Your task to perform on an android device: When is my next meeting? Image 0: 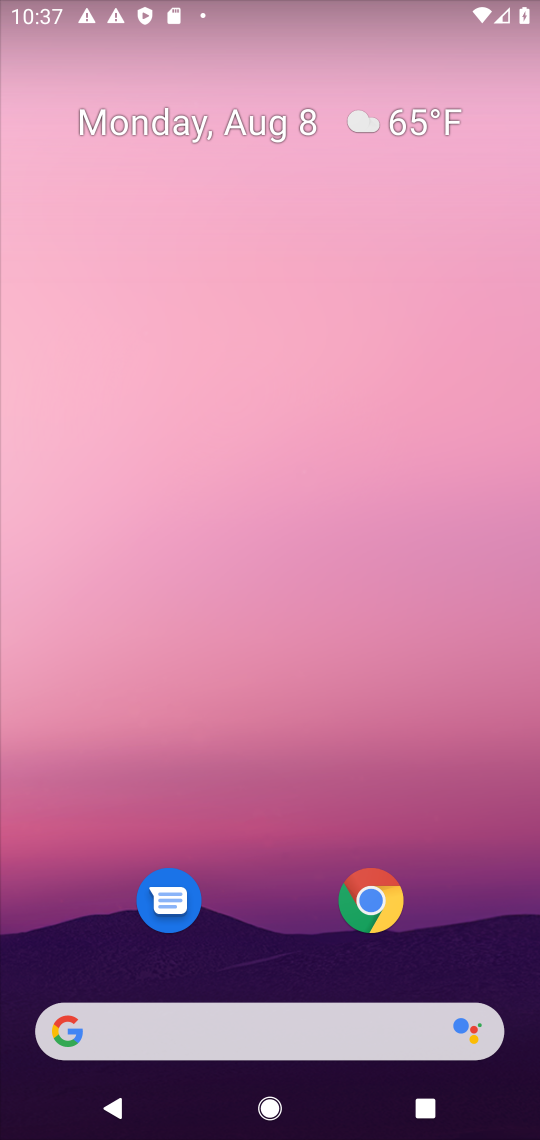
Step 0: drag from (236, 345) to (264, 66)
Your task to perform on an android device: When is my next meeting? Image 1: 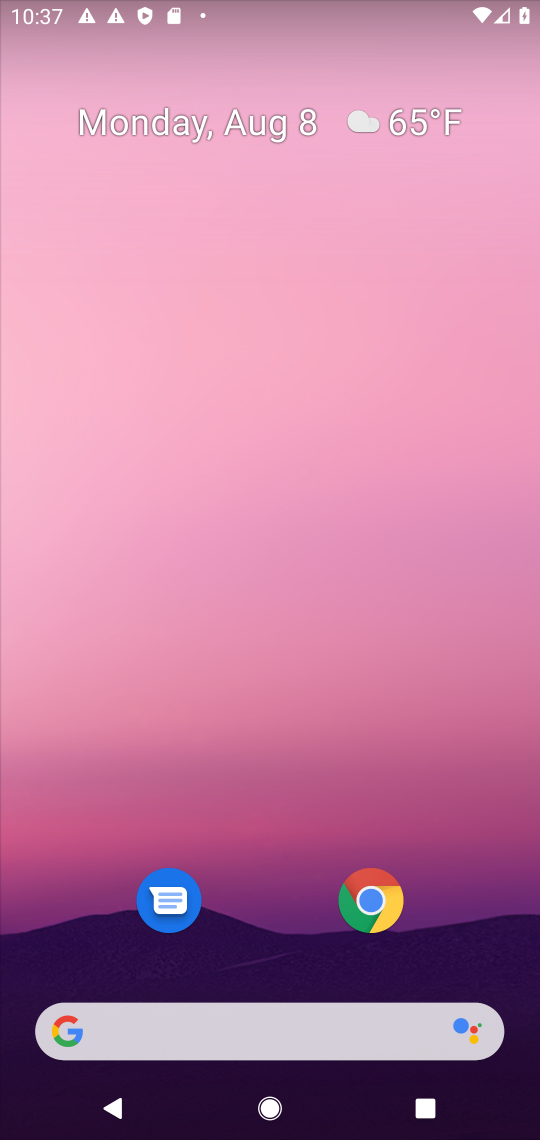
Step 1: drag from (231, 949) to (226, 22)
Your task to perform on an android device: When is my next meeting? Image 2: 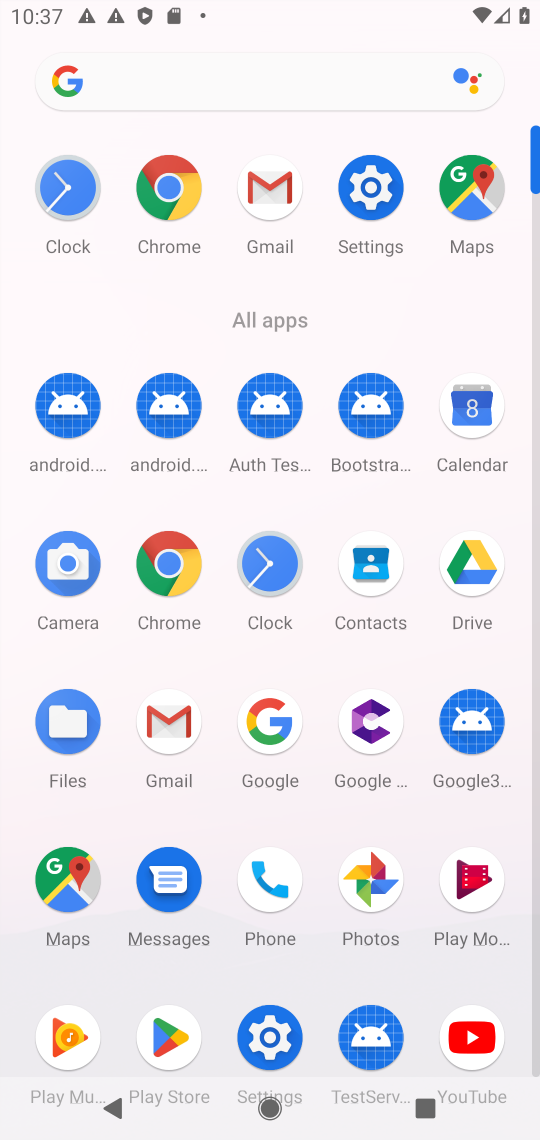
Step 2: click (463, 443)
Your task to perform on an android device: When is my next meeting? Image 3: 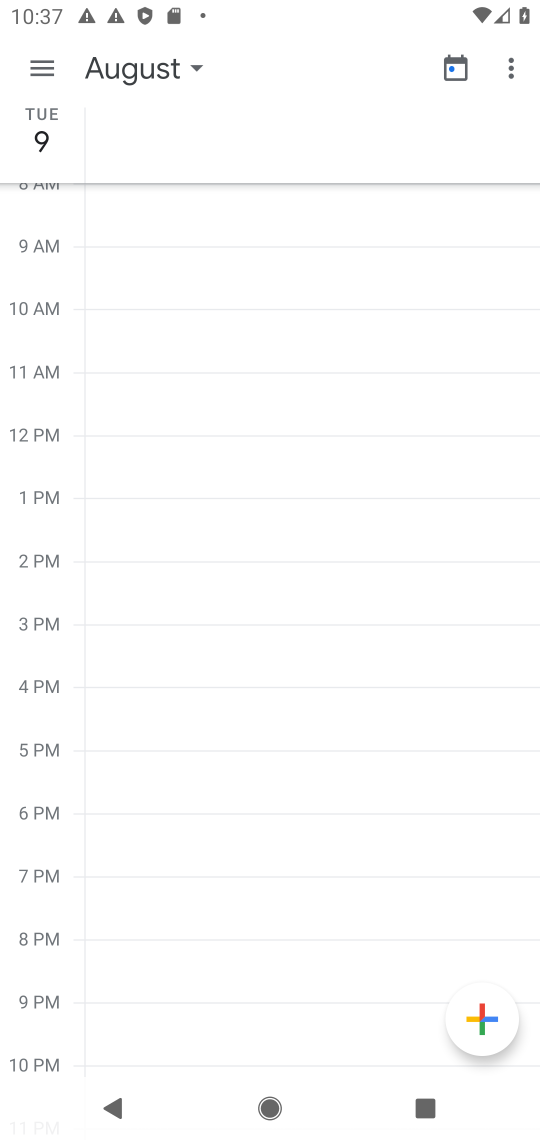
Step 3: click (48, 57)
Your task to perform on an android device: When is my next meeting? Image 4: 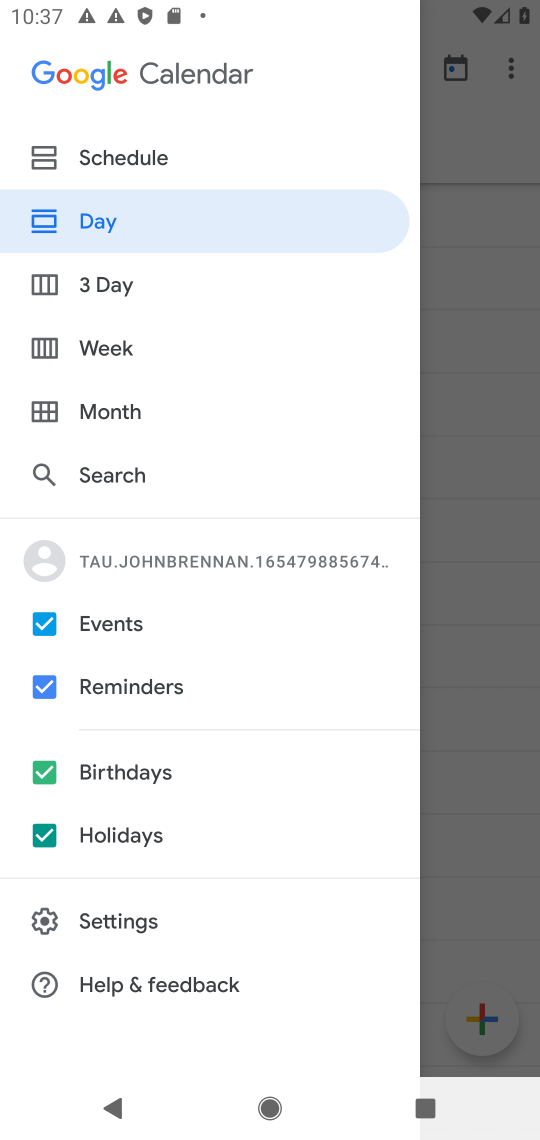
Step 4: click (111, 361)
Your task to perform on an android device: When is my next meeting? Image 5: 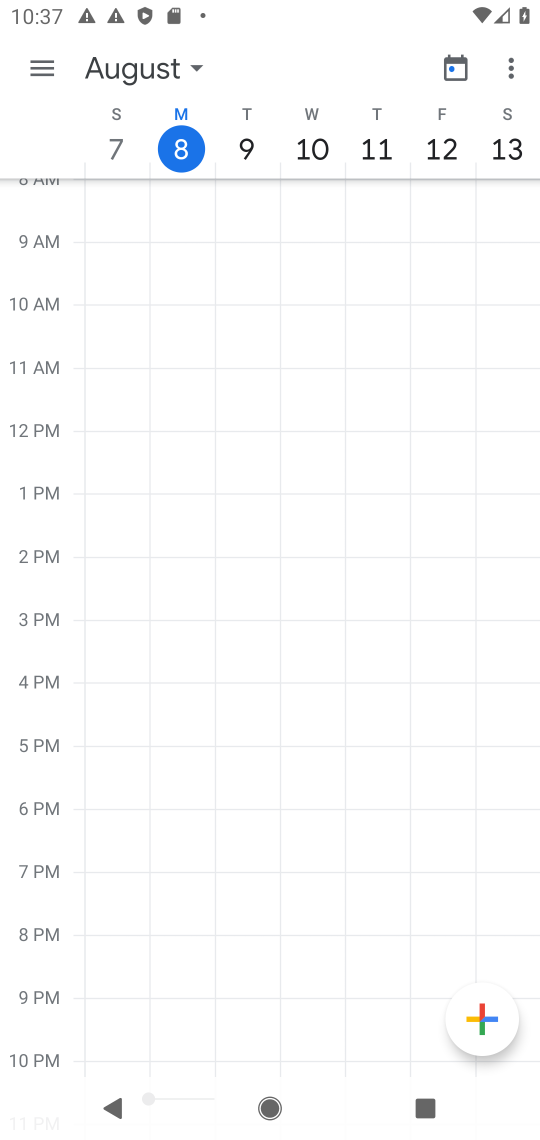
Step 5: click (34, 69)
Your task to perform on an android device: When is my next meeting? Image 6: 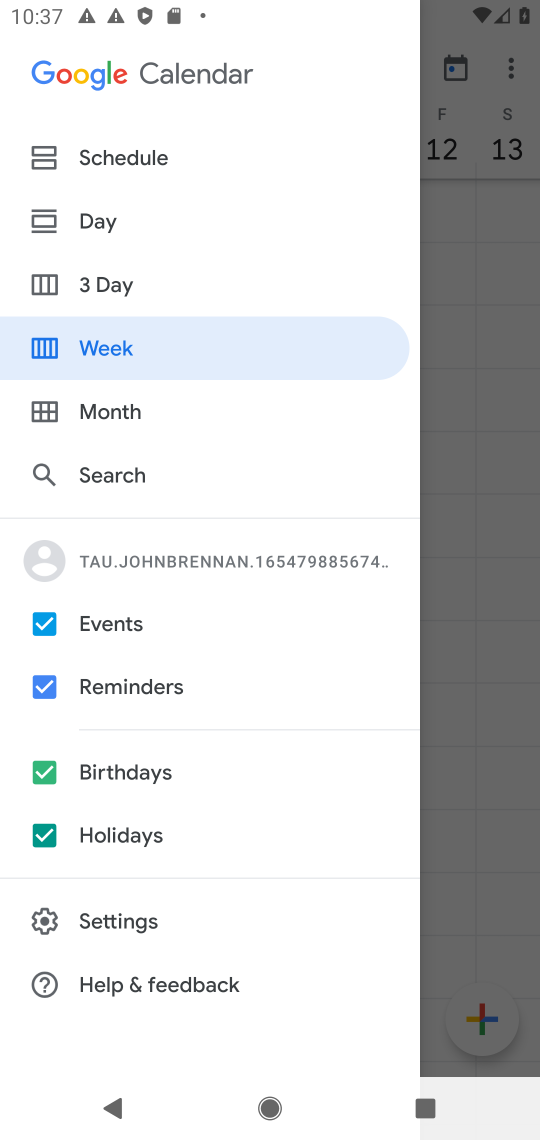
Step 6: click (115, 153)
Your task to perform on an android device: When is my next meeting? Image 7: 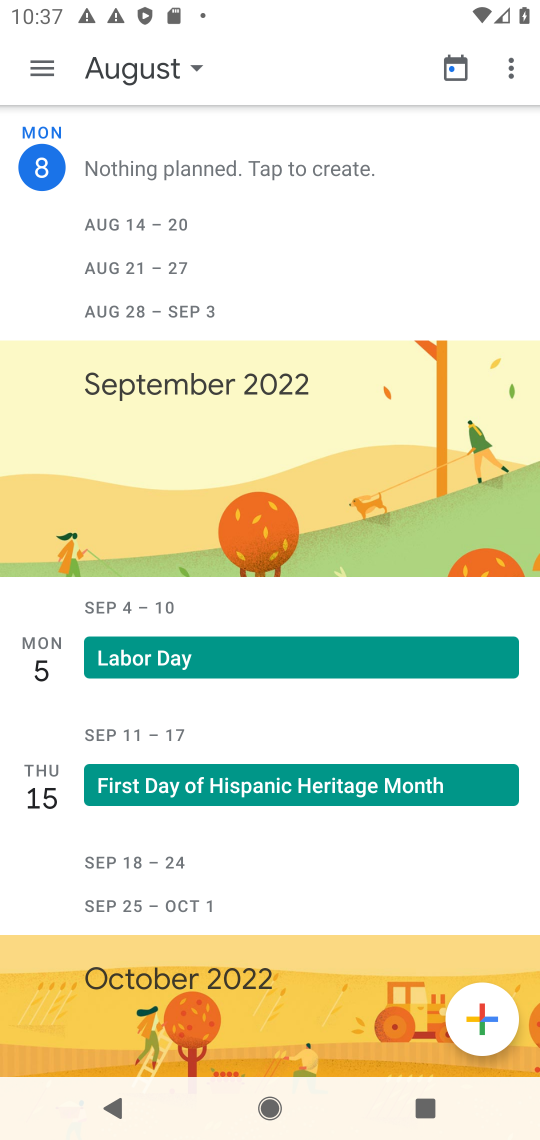
Step 7: click (147, 219)
Your task to perform on an android device: When is my next meeting? Image 8: 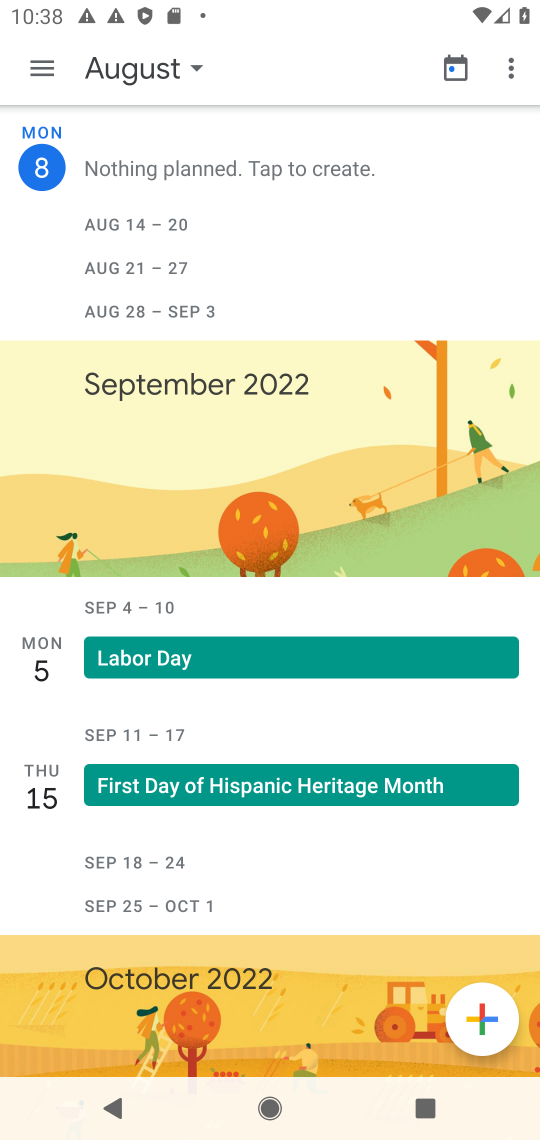
Step 8: task complete